Your task to perform on an android device: turn notification dots on Image 0: 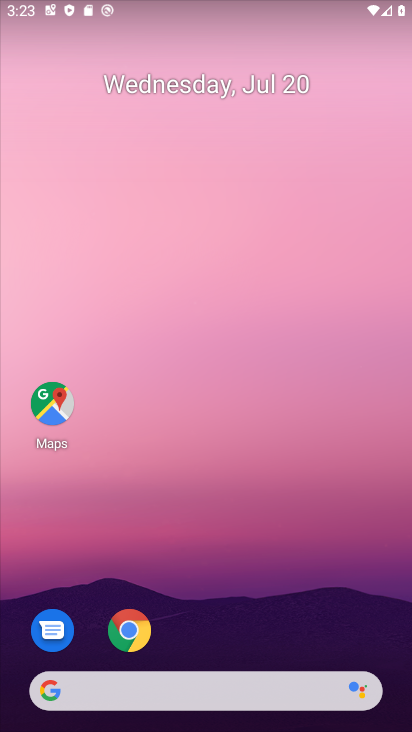
Step 0: drag from (217, 636) to (243, 101)
Your task to perform on an android device: turn notification dots on Image 1: 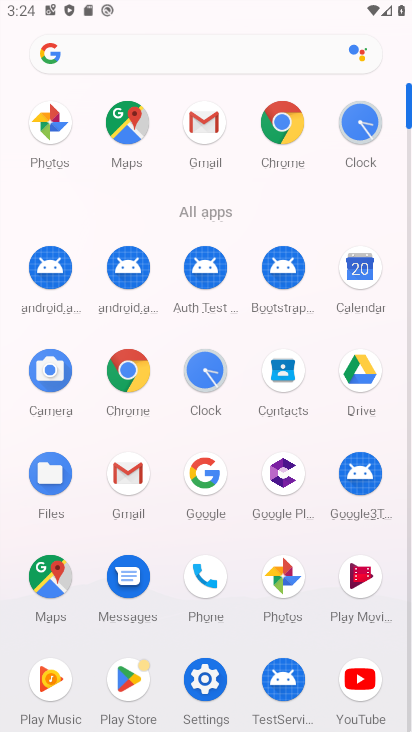
Step 1: click (202, 674)
Your task to perform on an android device: turn notification dots on Image 2: 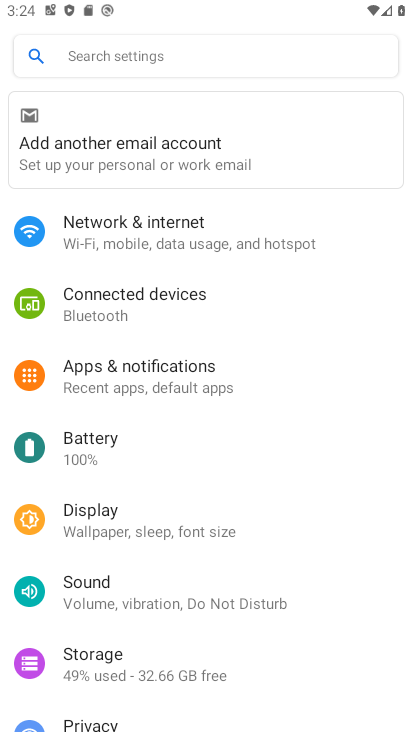
Step 2: click (236, 368)
Your task to perform on an android device: turn notification dots on Image 3: 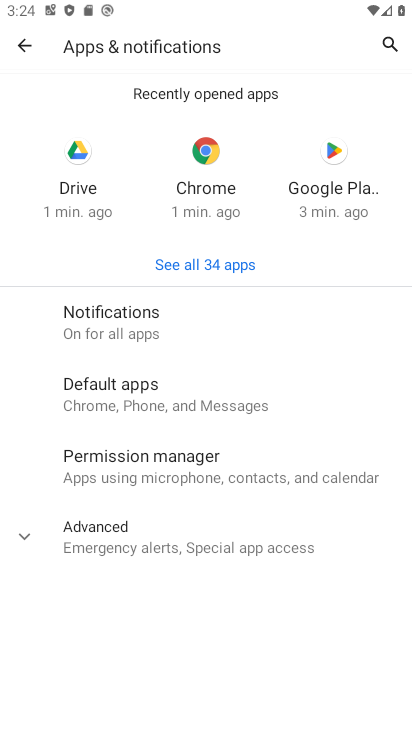
Step 3: click (172, 315)
Your task to perform on an android device: turn notification dots on Image 4: 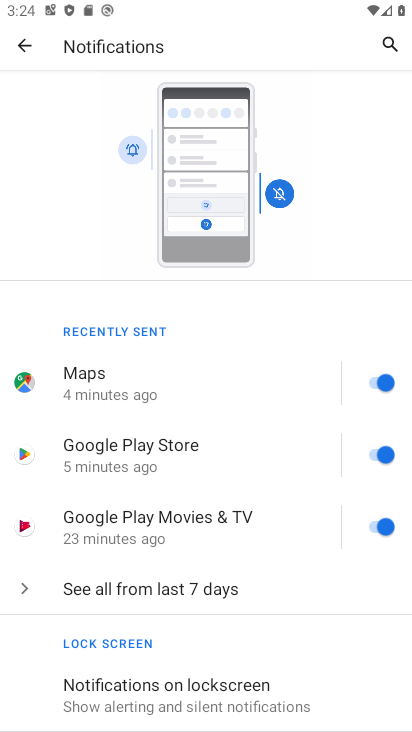
Step 4: drag from (212, 627) to (223, 234)
Your task to perform on an android device: turn notification dots on Image 5: 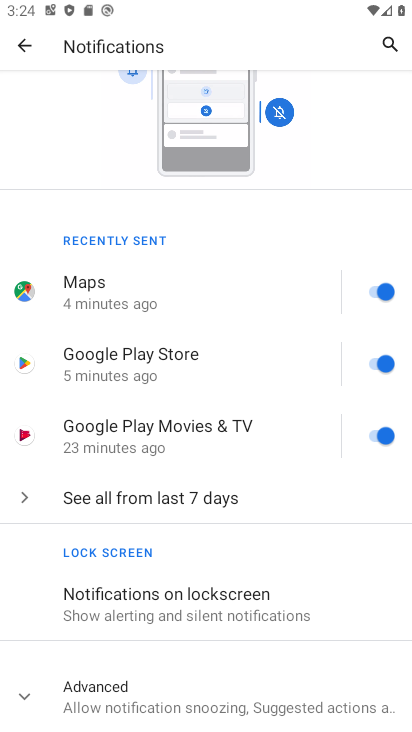
Step 5: click (25, 693)
Your task to perform on an android device: turn notification dots on Image 6: 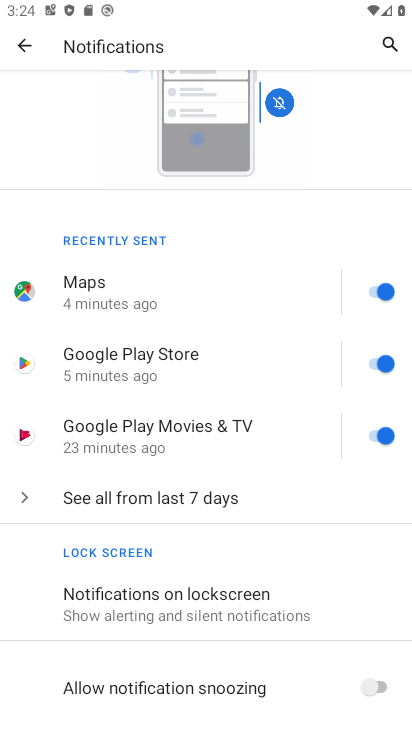
Step 6: task complete